Your task to perform on an android device: Open internet settings Image 0: 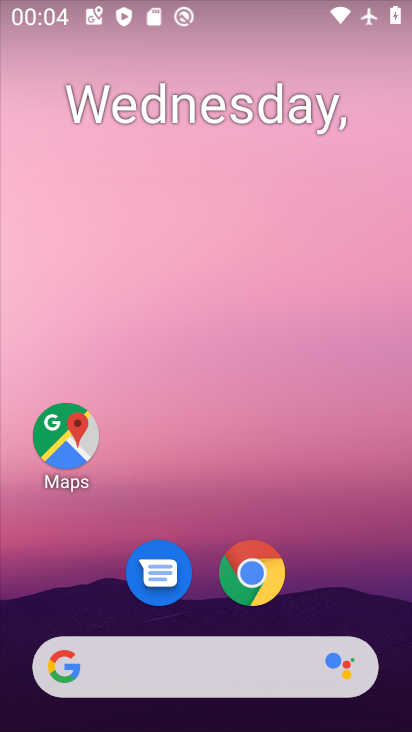
Step 0: drag from (302, 573) to (315, 120)
Your task to perform on an android device: Open internet settings Image 1: 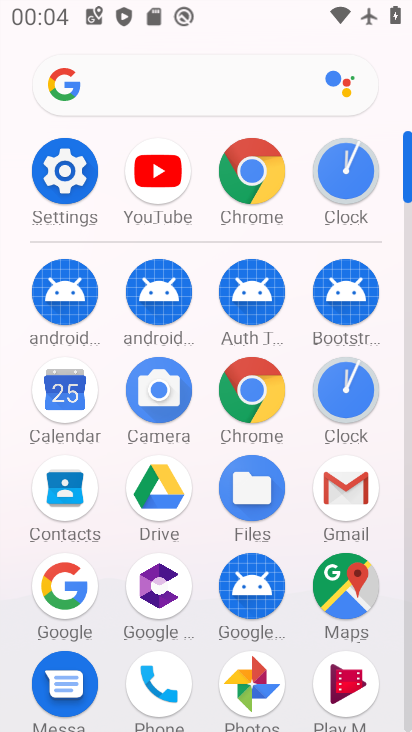
Step 1: click (88, 170)
Your task to perform on an android device: Open internet settings Image 2: 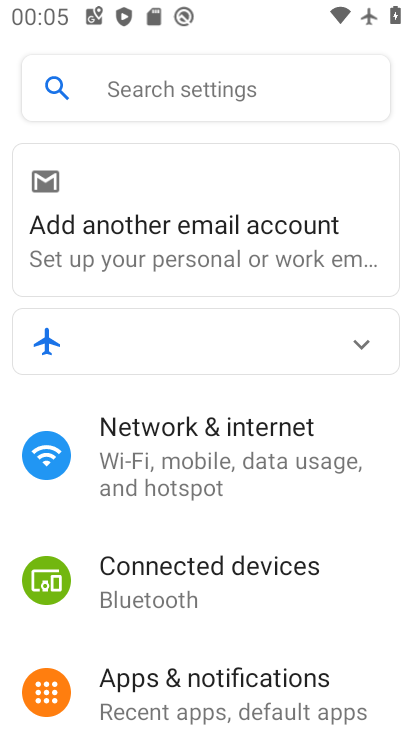
Step 2: click (246, 452)
Your task to perform on an android device: Open internet settings Image 3: 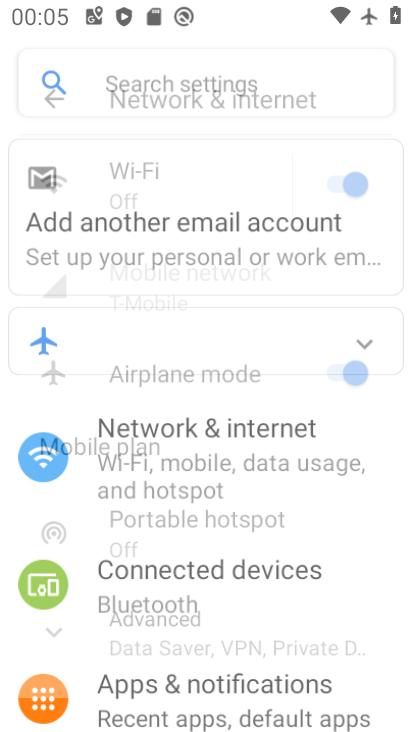
Step 3: task complete